Your task to perform on an android device: toggle data saver in the chrome app Image 0: 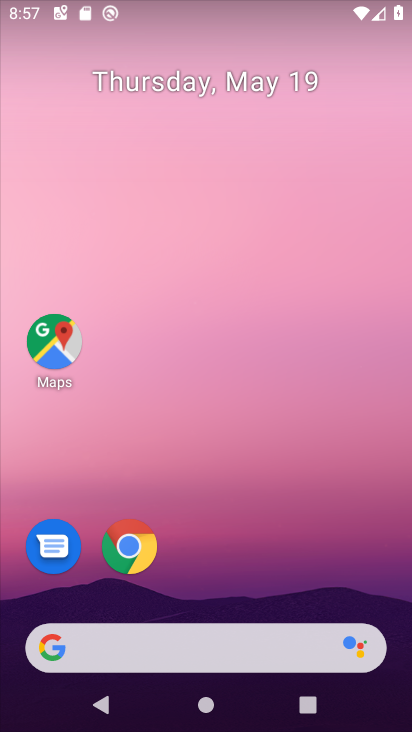
Step 0: click (223, 217)
Your task to perform on an android device: toggle data saver in the chrome app Image 1: 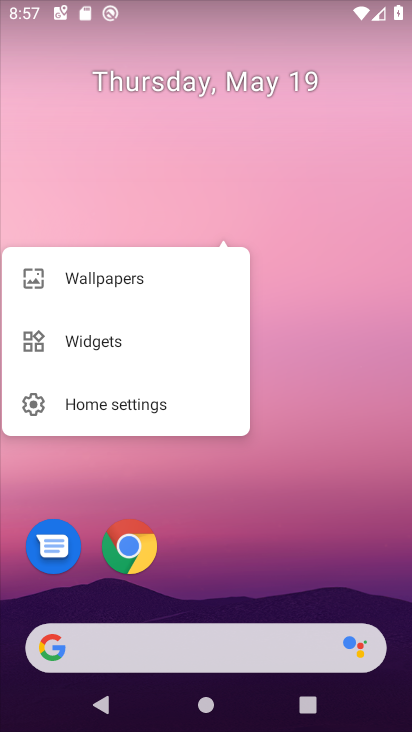
Step 1: click (257, 302)
Your task to perform on an android device: toggle data saver in the chrome app Image 2: 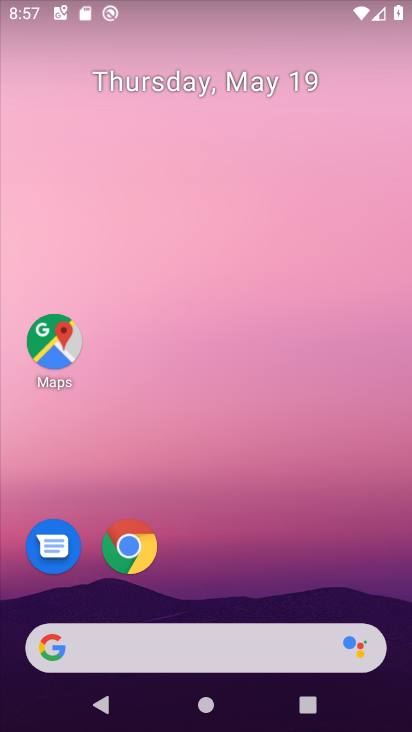
Step 2: click (270, 301)
Your task to perform on an android device: toggle data saver in the chrome app Image 3: 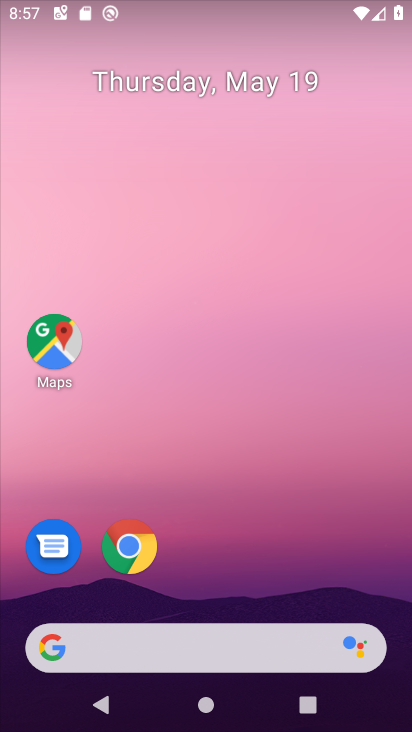
Step 3: drag from (236, 697) to (255, 79)
Your task to perform on an android device: toggle data saver in the chrome app Image 4: 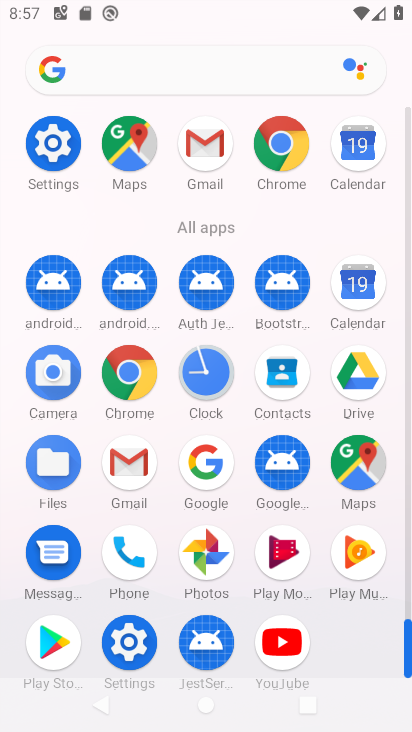
Step 4: click (281, 151)
Your task to perform on an android device: toggle data saver in the chrome app Image 5: 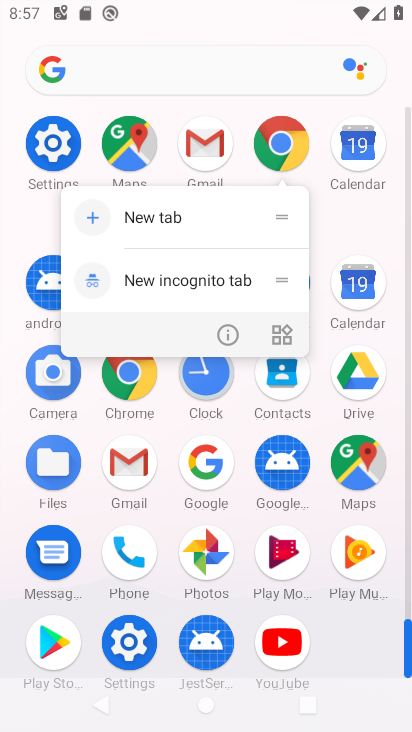
Step 5: click (281, 150)
Your task to perform on an android device: toggle data saver in the chrome app Image 6: 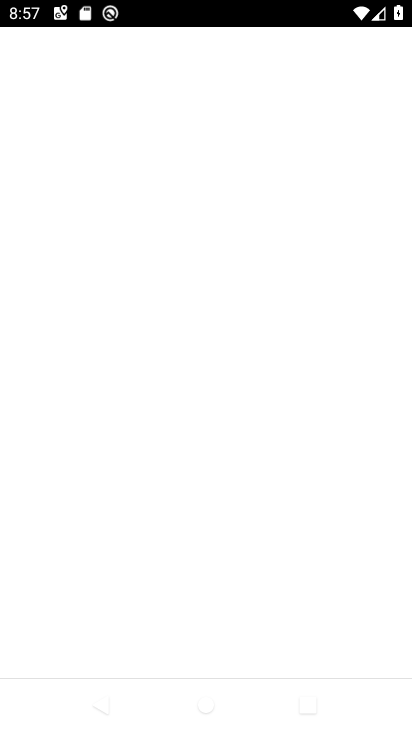
Step 6: click (281, 150)
Your task to perform on an android device: toggle data saver in the chrome app Image 7: 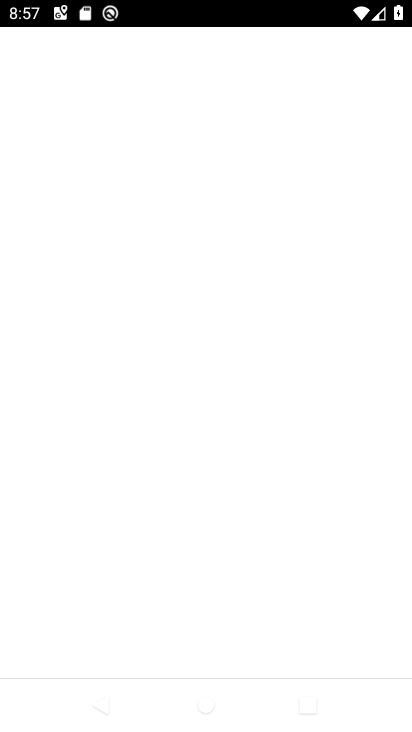
Step 7: click (281, 150)
Your task to perform on an android device: toggle data saver in the chrome app Image 8: 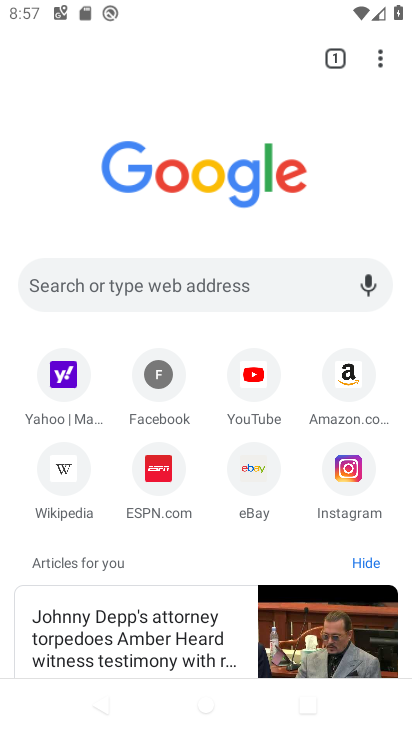
Step 8: drag from (374, 67) to (157, 493)
Your task to perform on an android device: toggle data saver in the chrome app Image 9: 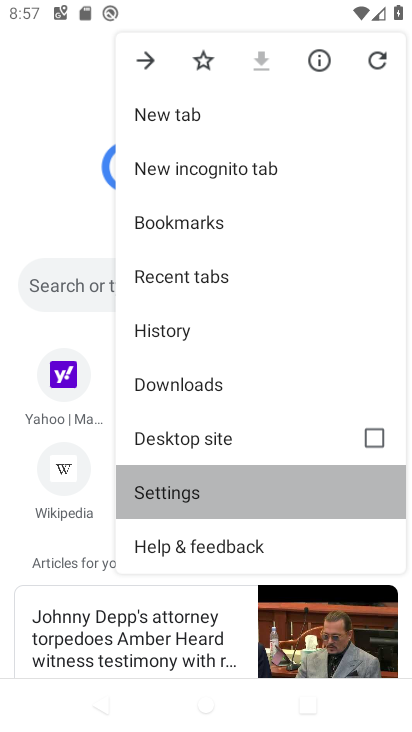
Step 9: click (157, 493)
Your task to perform on an android device: toggle data saver in the chrome app Image 10: 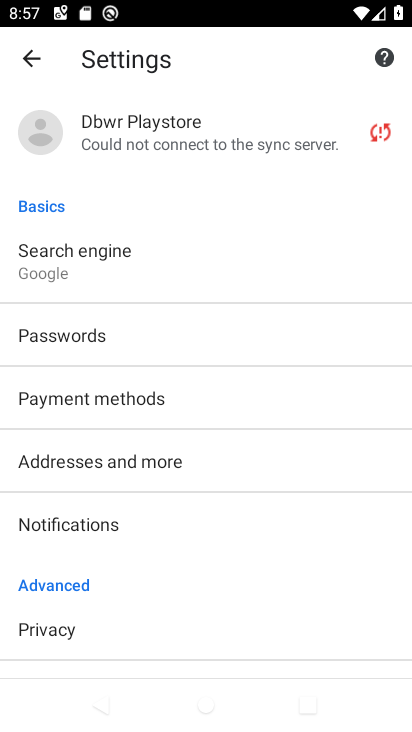
Step 10: drag from (180, 561) to (151, 207)
Your task to perform on an android device: toggle data saver in the chrome app Image 11: 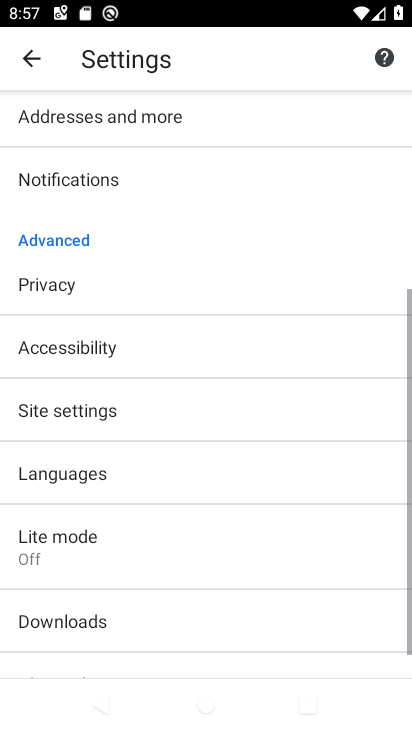
Step 11: drag from (171, 457) to (206, 227)
Your task to perform on an android device: toggle data saver in the chrome app Image 12: 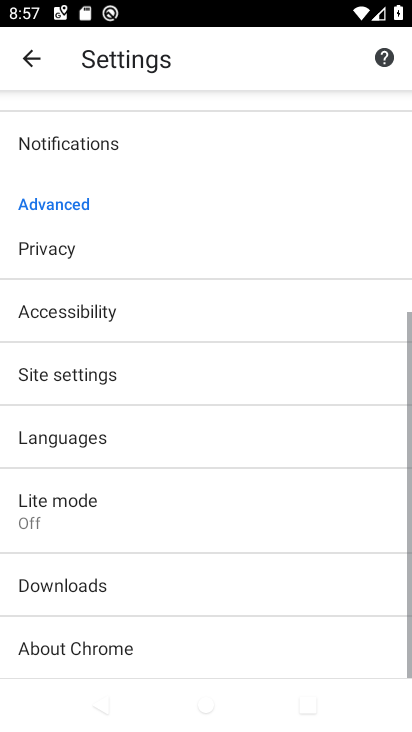
Step 12: drag from (183, 492) to (234, 142)
Your task to perform on an android device: toggle data saver in the chrome app Image 13: 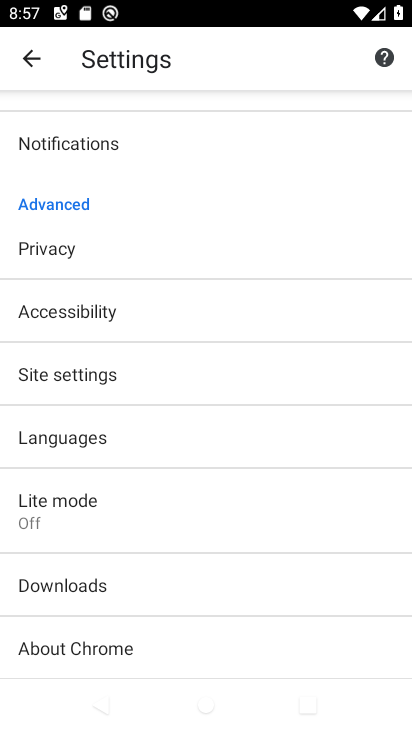
Step 13: drag from (163, 412) to (108, 200)
Your task to perform on an android device: toggle data saver in the chrome app Image 14: 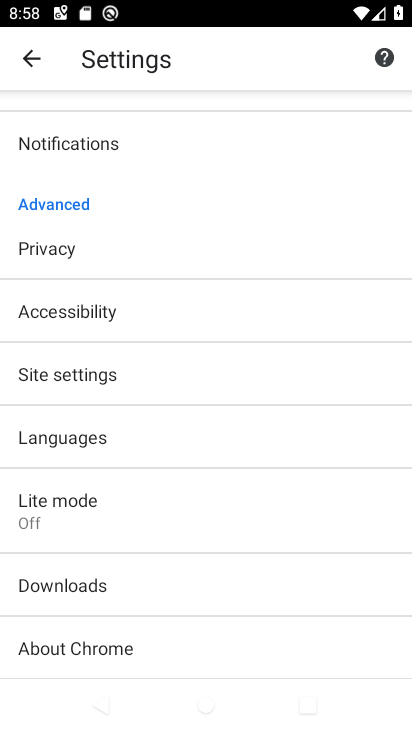
Step 14: click (57, 491)
Your task to perform on an android device: toggle data saver in the chrome app Image 15: 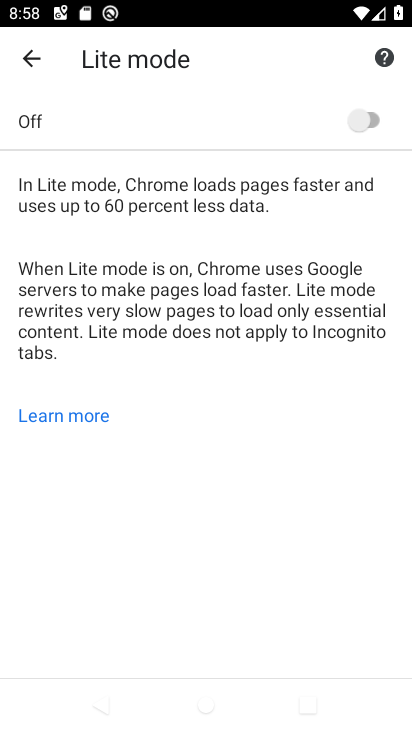
Step 15: click (363, 122)
Your task to perform on an android device: toggle data saver in the chrome app Image 16: 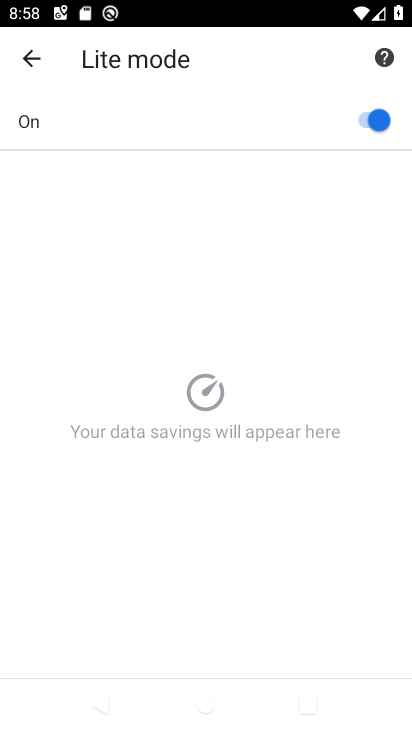
Step 16: task complete